Your task to perform on an android device: Go to ESPN.com Image 0: 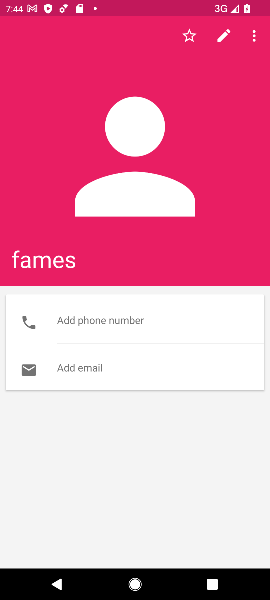
Step 0: press home button
Your task to perform on an android device: Go to ESPN.com Image 1: 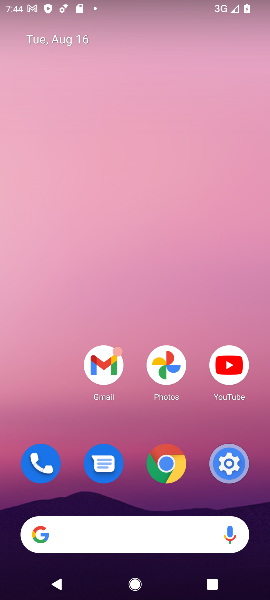
Step 1: click (157, 472)
Your task to perform on an android device: Go to ESPN.com Image 2: 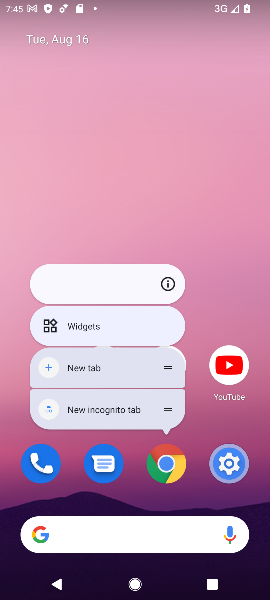
Step 2: click (168, 475)
Your task to perform on an android device: Go to ESPN.com Image 3: 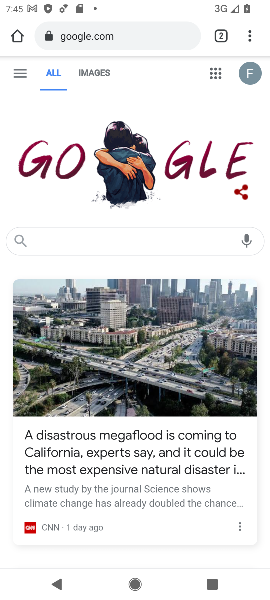
Step 3: drag from (128, 229) to (119, 362)
Your task to perform on an android device: Go to ESPN.com Image 4: 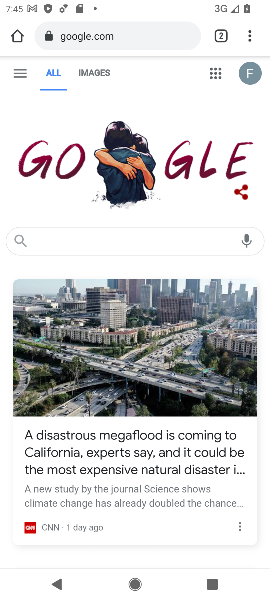
Step 4: click (116, 31)
Your task to perform on an android device: Go to ESPN.com Image 5: 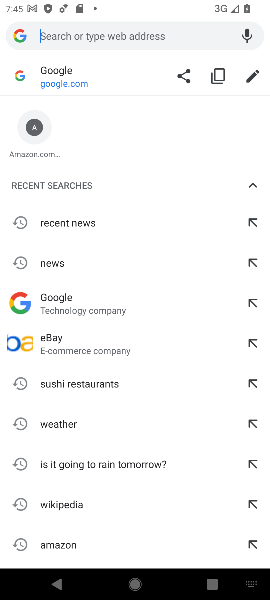
Step 5: type "ESPN.com"
Your task to perform on an android device: Go to ESPN.com Image 6: 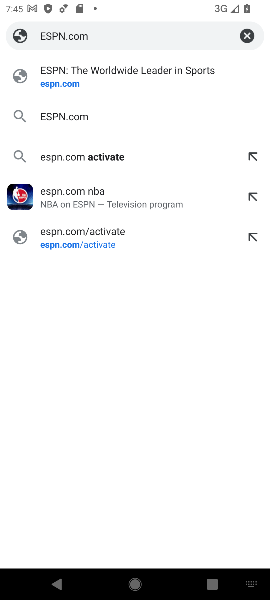
Step 6: click (84, 75)
Your task to perform on an android device: Go to ESPN.com Image 7: 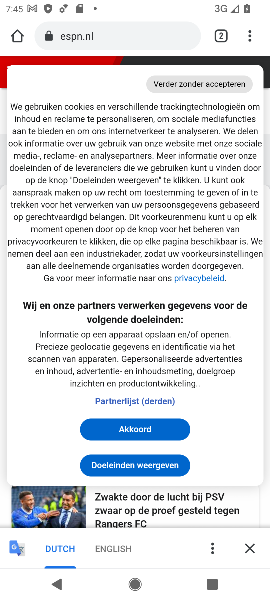
Step 7: task complete